Your task to perform on an android device: turn off picture-in-picture Image 0: 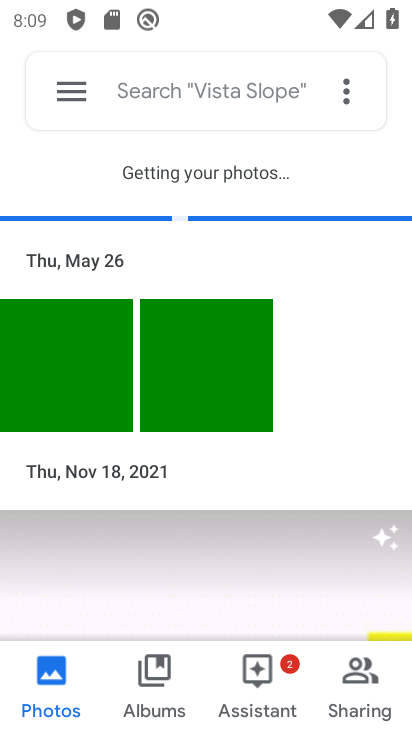
Step 0: press home button
Your task to perform on an android device: turn off picture-in-picture Image 1: 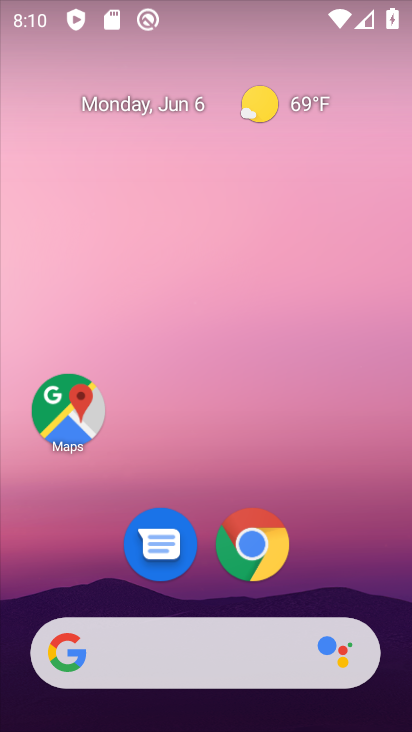
Step 1: drag from (219, 474) to (283, 196)
Your task to perform on an android device: turn off picture-in-picture Image 2: 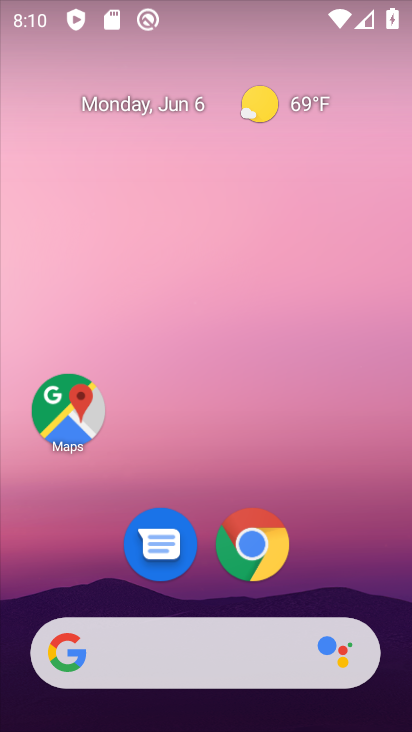
Step 2: drag from (176, 602) to (184, 296)
Your task to perform on an android device: turn off picture-in-picture Image 3: 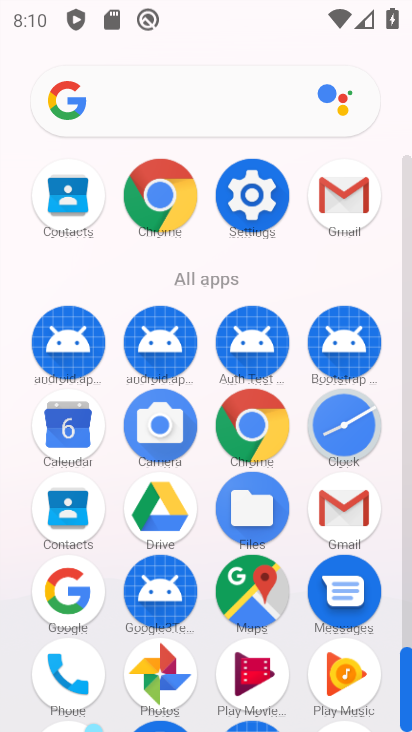
Step 3: click (258, 196)
Your task to perform on an android device: turn off picture-in-picture Image 4: 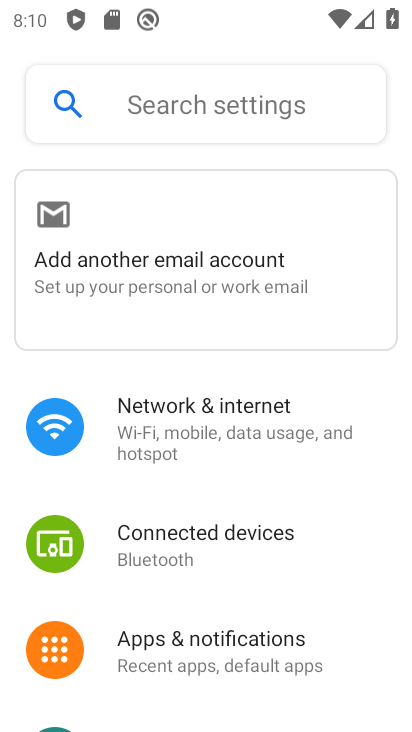
Step 4: drag from (188, 612) to (221, 314)
Your task to perform on an android device: turn off picture-in-picture Image 5: 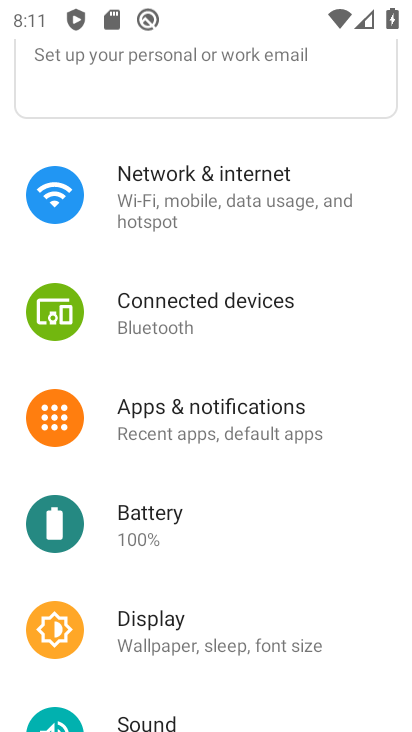
Step 5: click (263, 420)
Your task to perform on an android device: turn off picture-in-picture Image 6: 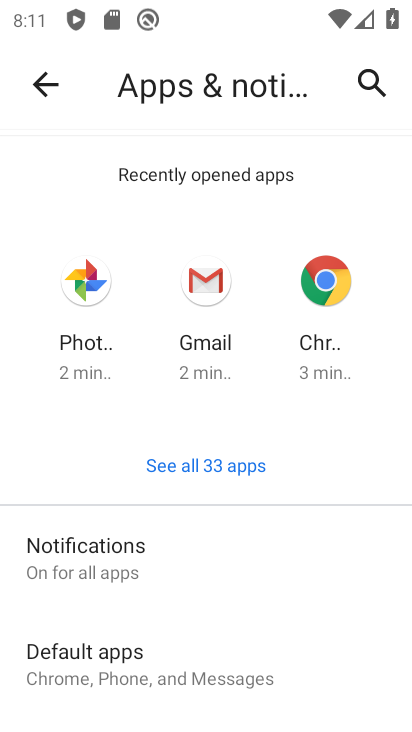
Step 6: drag from (247, 668) to (346, 354)
Your task to perform on an android device: turn off picture-in-picture Image 7: 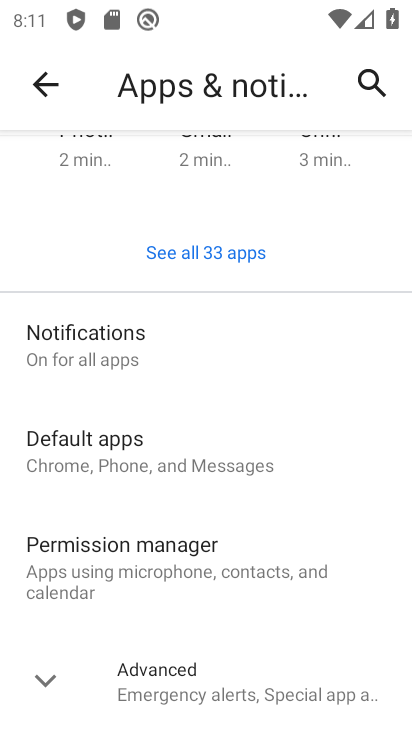
Step 7: click (31, 679)
Your task to perform on an android device: turn off picture-in-picture Image 8: 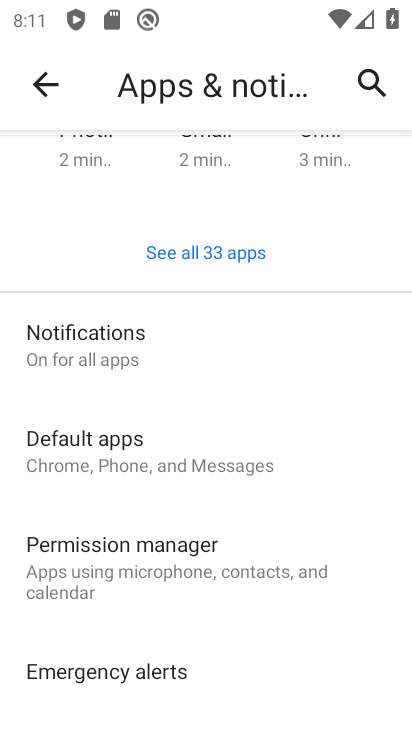
Step 8: drag from (157, 638) to (275, 306)
Your task to perform on an android device: turn off picture-in-picture Image 9: 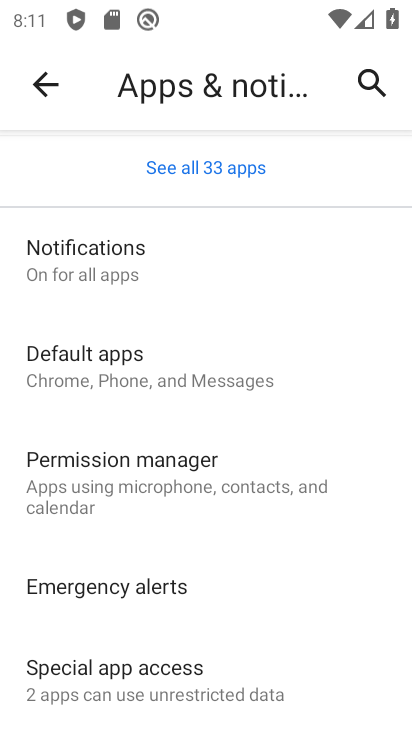
Step 9: click (206, 681)
Your task to perform on an android device: turn off picture-in-picture Image 10: 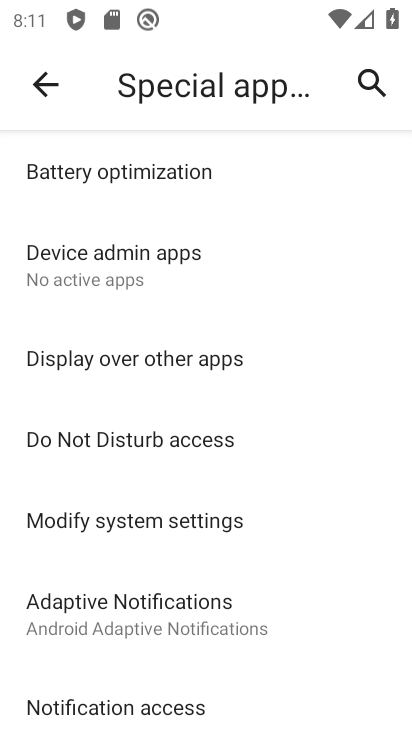
Step 10: drag from (169, 671) to (254, 399)
Your task to perform on an android device: turn off picture-in-picture Image 11: 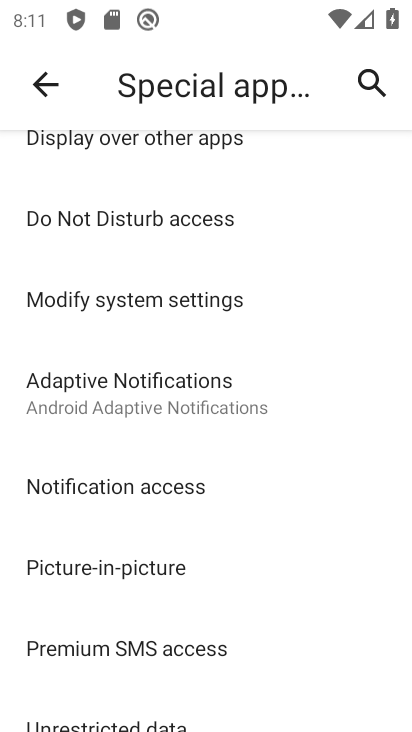
Step 11: click (134, 578)
Your task to perform on an android device: turn off picture-in-picture Image 12: 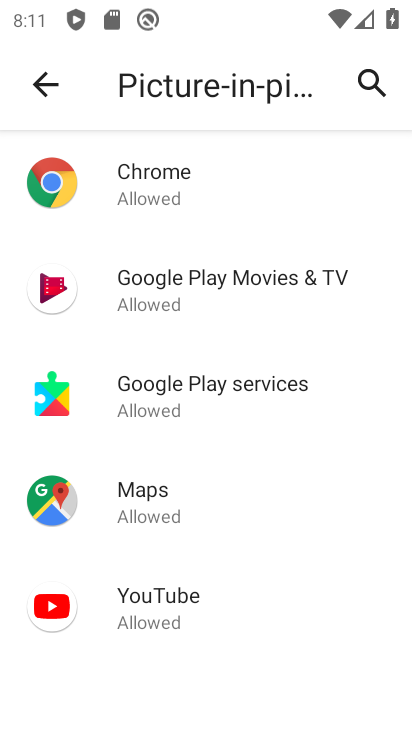
Step 12: click (240, 188)
Your task to perform on an android device: turn off picture-in-picture Image 13: 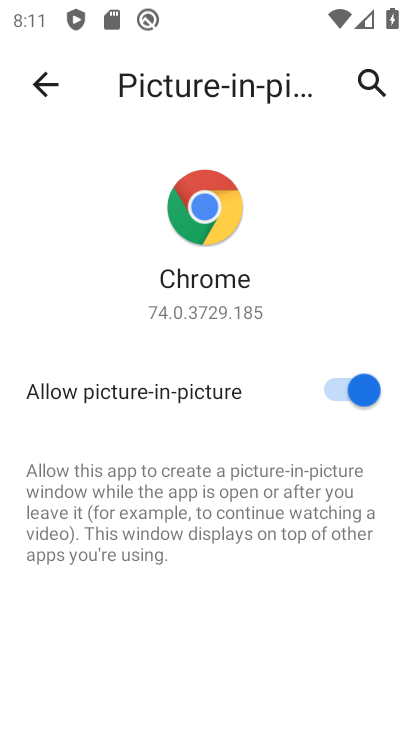
Step 13: click (338, 385)
Your task to perform on an android device: turn off picture-in-picture Image 14: 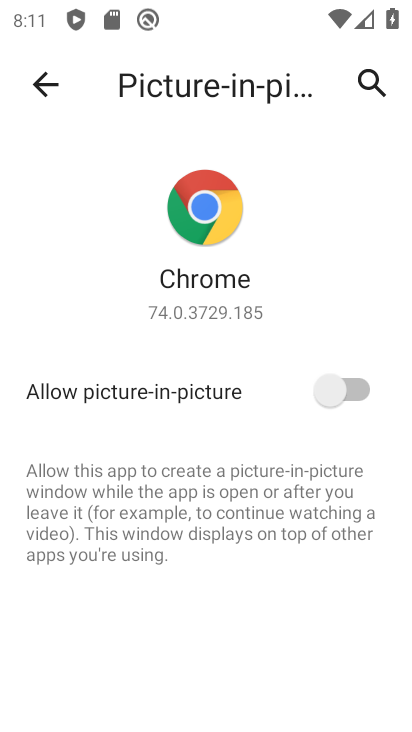
Step 14: task complete